Your task to perform on an android device: open a bookmark in the chrome app Image 0: 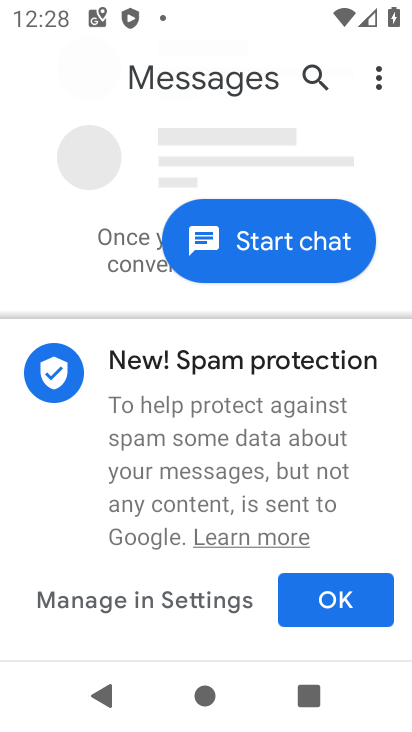
Step 0: press home button
Your task to perform on an android device: open a bookmark in the chrome app Image 1: 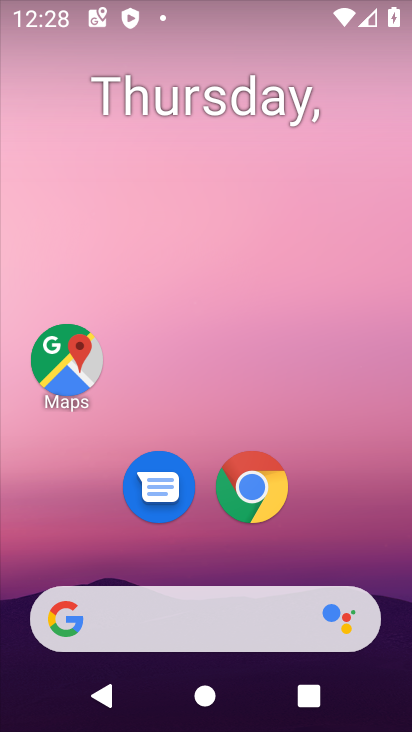
Step 1: click (278, 494)
Your task to perform on an android device: open a bookmark in the chrome app Image 2: 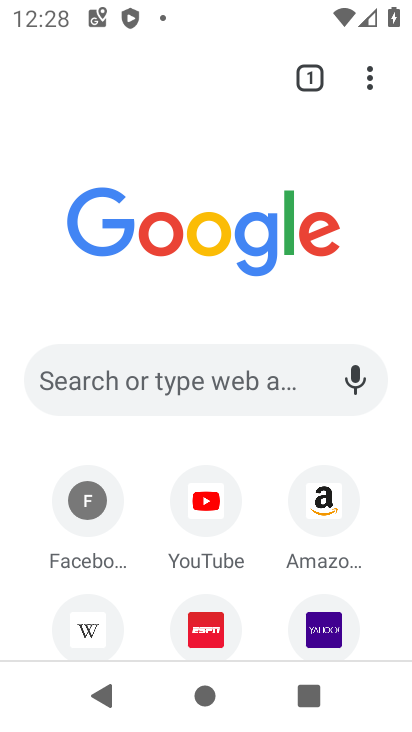
Step 2: click (381, 90)
Your task to perform on an android device: open a bookmark in the chrome app Image 3: 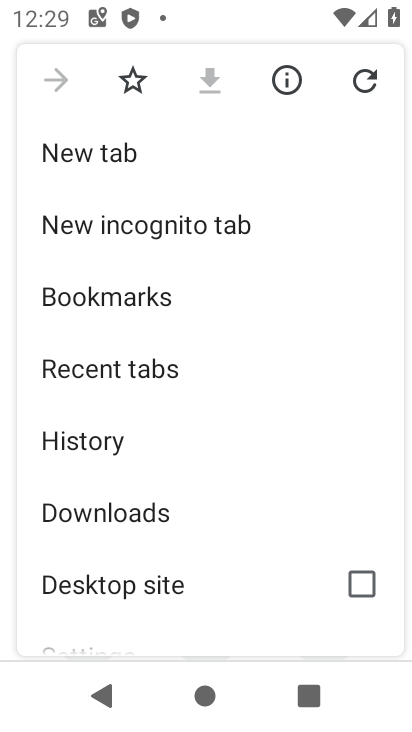
Step 3: click (210, 293)
Your task to perform on an android device: open a bookmark in the chrome app Image 4: 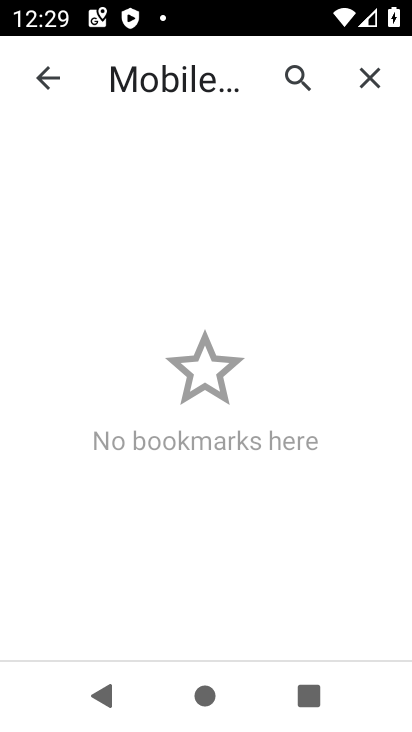
Step 4: task complete